Your task to perform on an android device: Open maps Image 0: 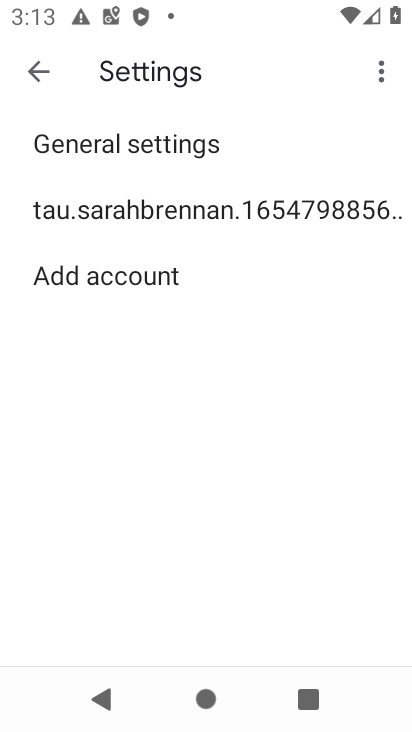
Step 0: drag from (341, 504) to (336, 46)
Your task to perform on an android device: Open maps Image 1: 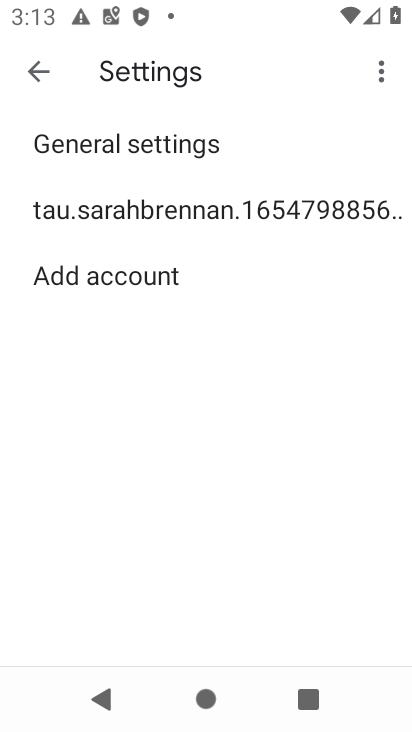
Step 1: press home button
Your task to perform on an android device: Open maps Image 2: 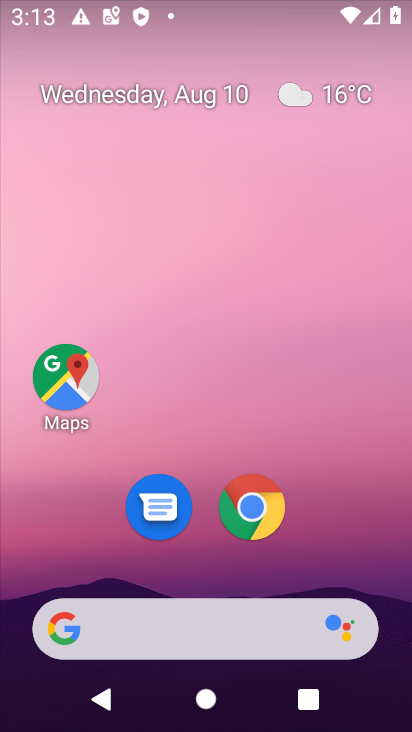
Step 2: drag from (346, 524) to (351, 62)
Your task to perform on an android device: Open maps Image 3: 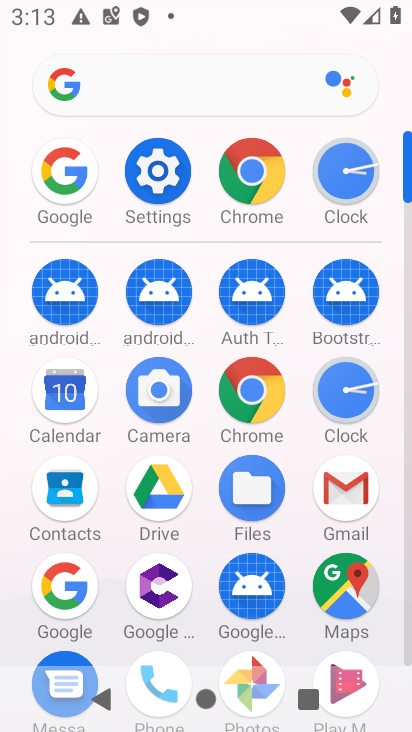
Step 3: click (338, 592)
Your task to perform on an android device: Open maps Image 4: 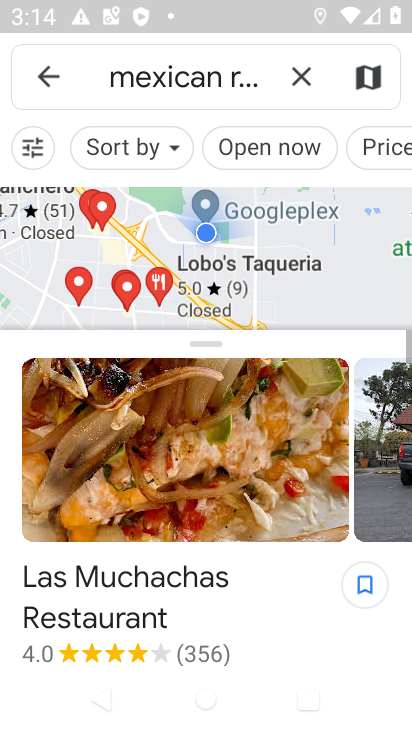
Step 4: task complete